Your task to perform on an android device: Search for vegetarian restaurants on Maps Image 0: 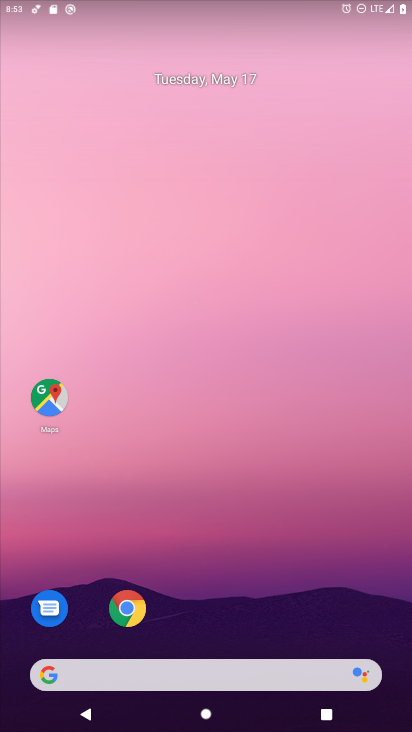
Step 0: click (58, 391)
Your task to perform on an android device: Search for vegetarian restaurants on Maps Image 1: 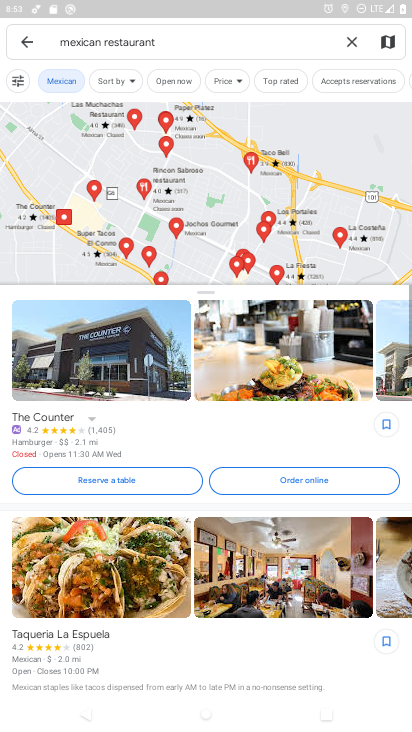
Step 1: click (355, 39)
Your task to perform on an android device: Search for vegetarian restaurants on Maps Image 2: 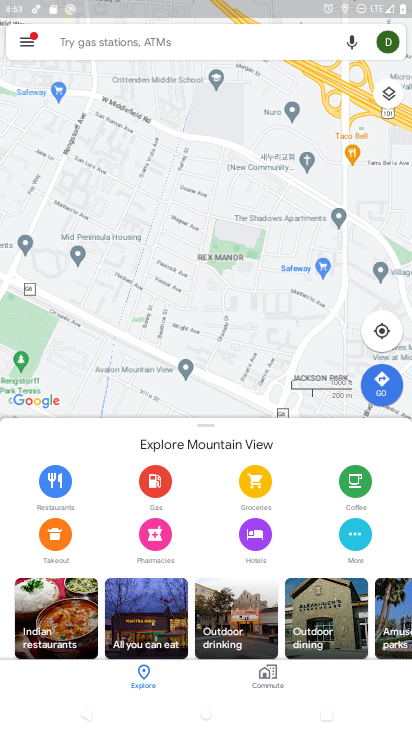
Step 2: click (187, 41)
Your task to perform on an android device: Search for vegetarian restaurants on Maps Image 3: 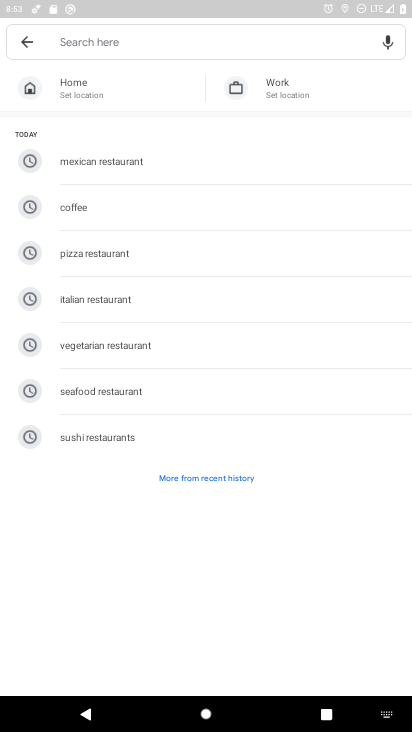
Step 3: type "vegetarian restaurants"
Your task to perform on an android device: Search for vegetarian restaurants on Maps Image 4: 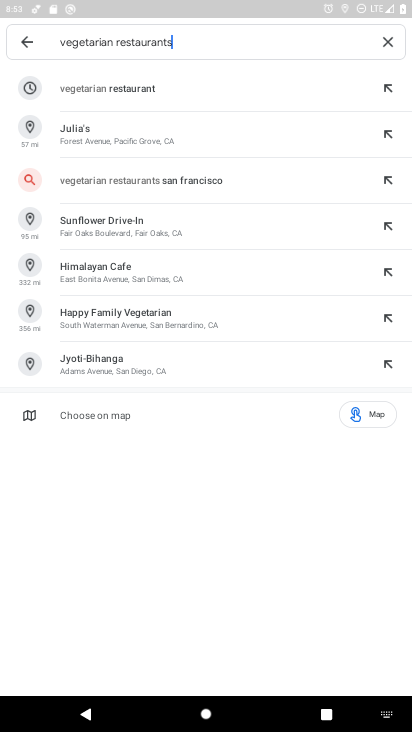
Step 4: click (165, 80)
Your task to perform on an android device: Search for vegetarian restaurants on Maps Image 5: 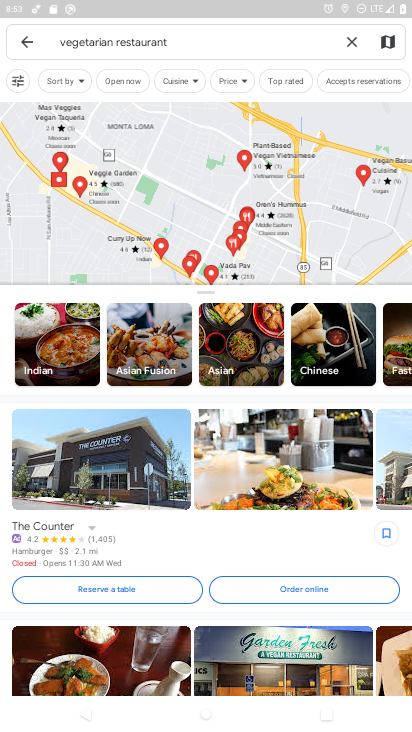
Step 5: task complete